Your task to perform on an android device: Go to Maps Image 0: 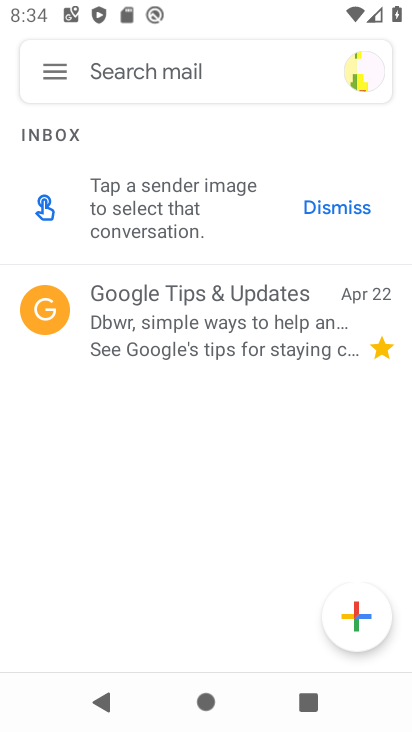
Step 0: press home button
Your task to perform on an android device: Go to Maps Image 1: 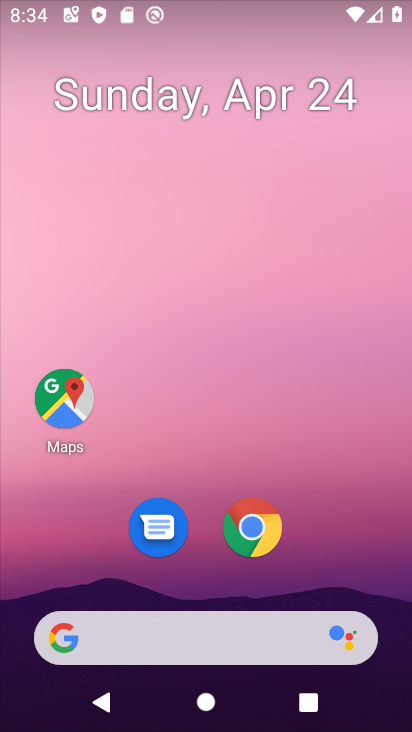
Step 1: click (79, 390)
Your task to perform on an android device: Go to Maps Image 2: 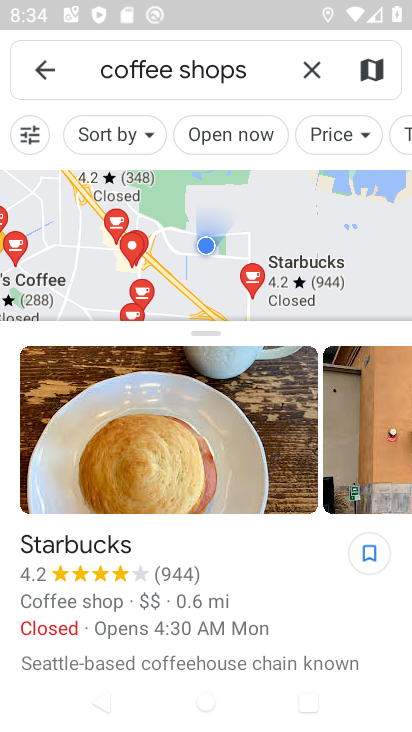
Step 2: task complete